Your task to perform on an android device: empty trash in the gmail app Image 0: 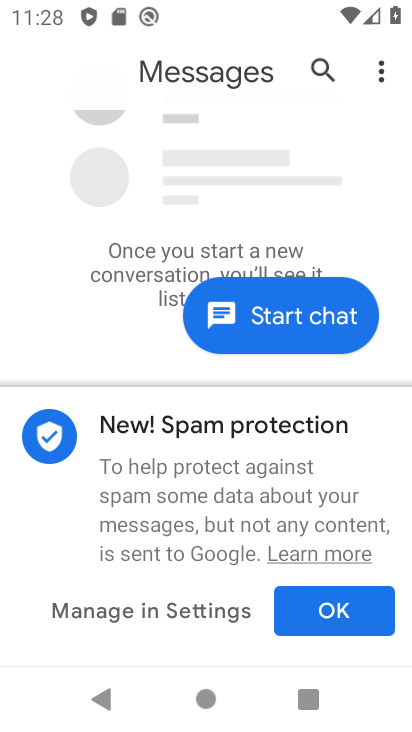
Step 0: press home button
Your task to perform on an android device: empty trash in the gmail app Image 1: 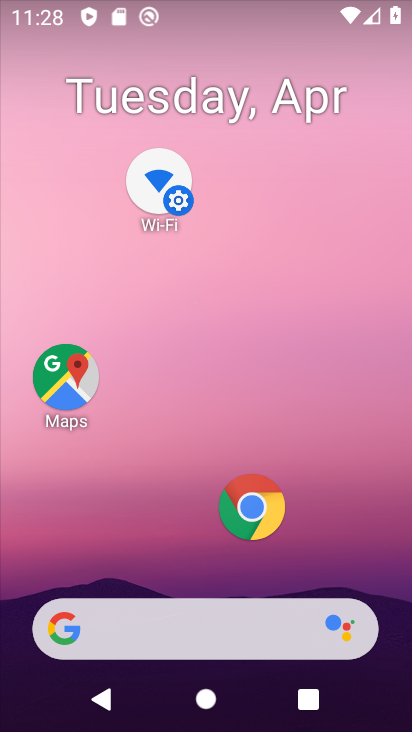
Step 1: drag from (29, 583) to (227, 214)
Your task to perform on an android device: empty trash in the gmail app Image 2: 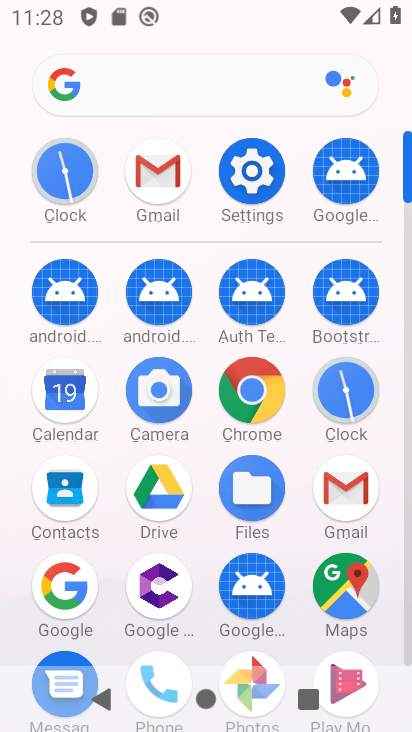
Step 2: click (359, 476)
Your task to perform on an android device: empty trash in the gmail app Image 3: 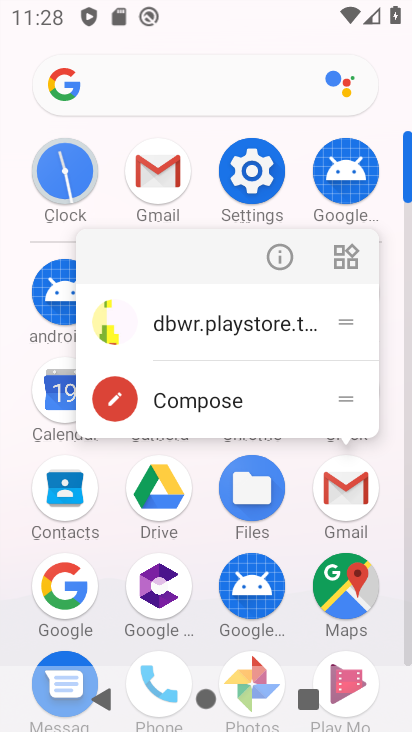
Step 3: click (335, 489)
Your task to perform on an android device: empty trash in the gmail app Image 4: 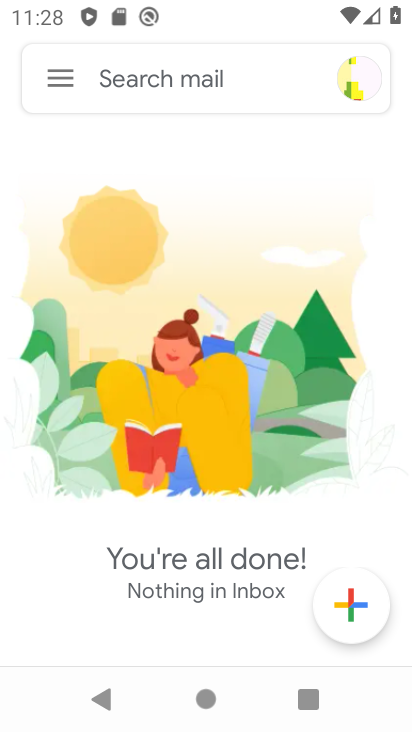
Step 4: click (60, 77)
Your task to perform on an android device: empty trash in the gmail app Image 5: 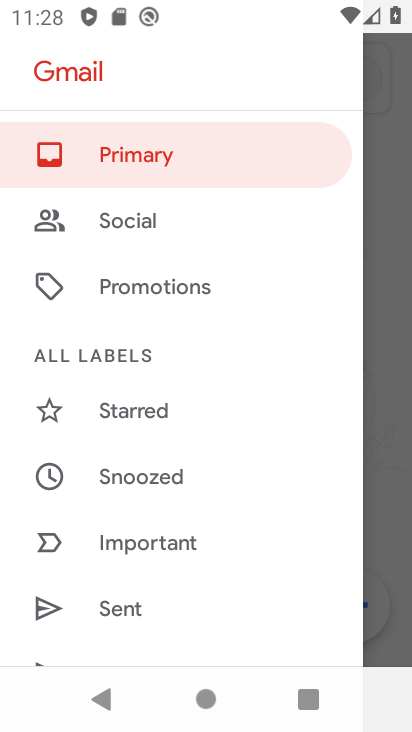
Step 5: drag from (125, 577) to (190, 271)
Your task to perform on an android device: empty trash in the gmail app Image 6: 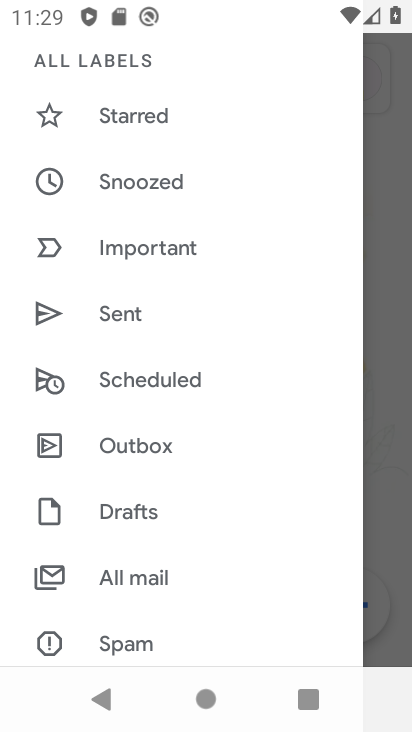
Step 6: drag from (58, 649) to (117, 326)
Your task to perform on an android device: empty trash in the gmail app Image 7: 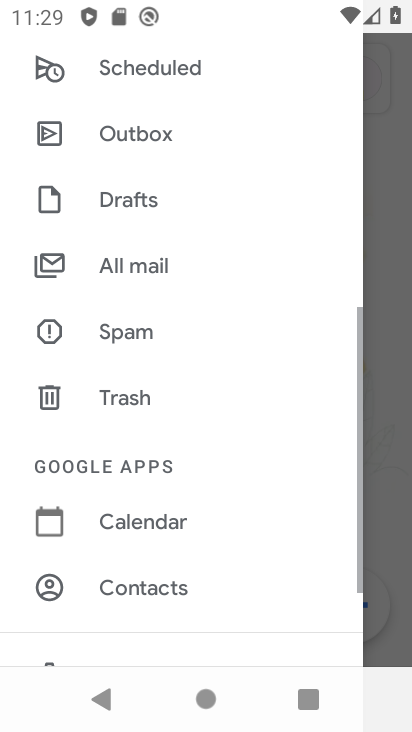
Step 7: drag from (74, 594) to (161, 301)
Your task to perform on an android device: empty trash in the gmail app Image 8: 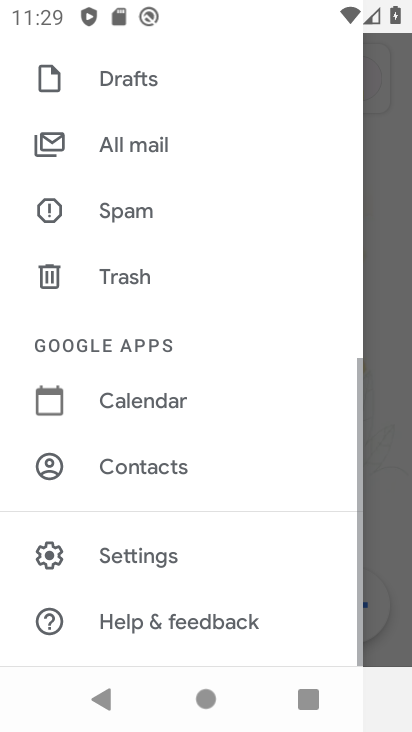
Step 8: click (160, 277)
Your task to perform on an android device: empty trash in the gmail app Image 9: 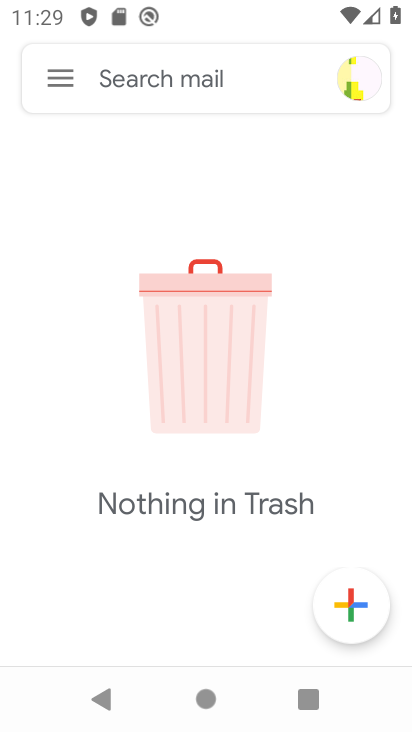
Step 9: task complete